Your task to perform on an android device: Go to accessibility settings Image 0: 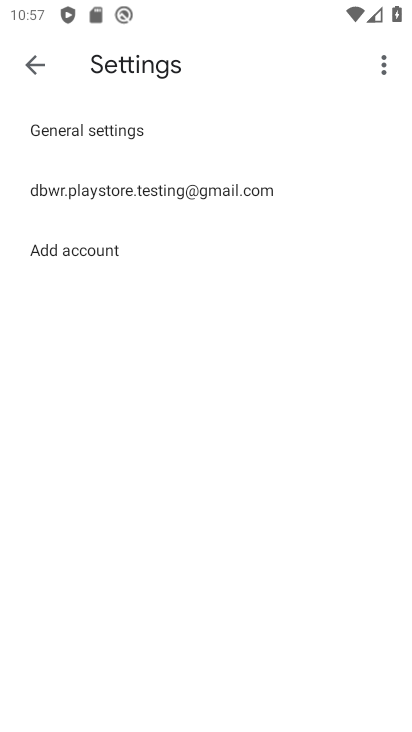
Step 0: press home button
Your task to perform on an android device: Go to accessibility settings Image 1: 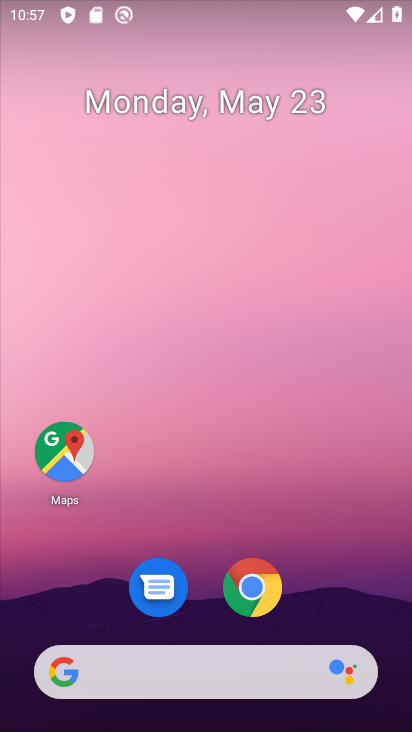
Step 1: drag from (349, 613) to (300, 225)
Your task to perform on an android device: Go to accessibility settings Image 2: 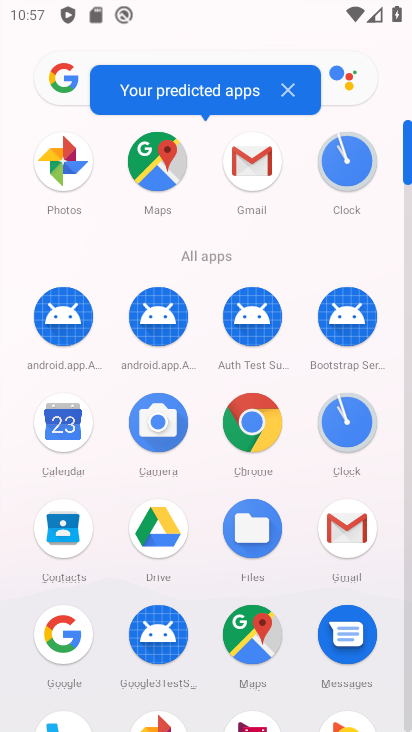
Step 2: click (407, 694)
Your task to perform on an android device: Go to accessibility settings Image 3: 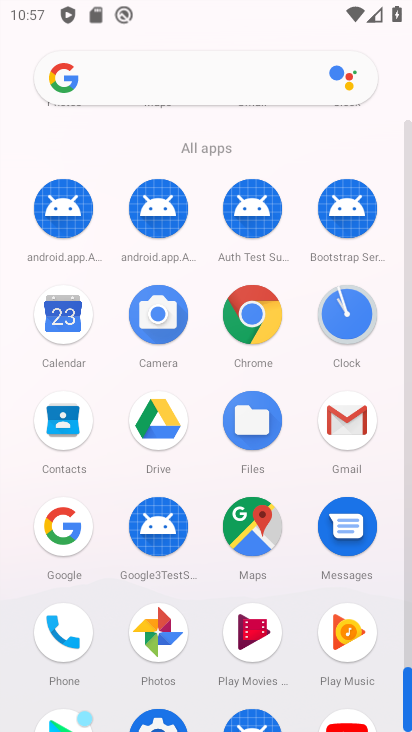
Step 3: click (165, 723)
Your task to perform on an android device: Go to accessibility settings Image 4: 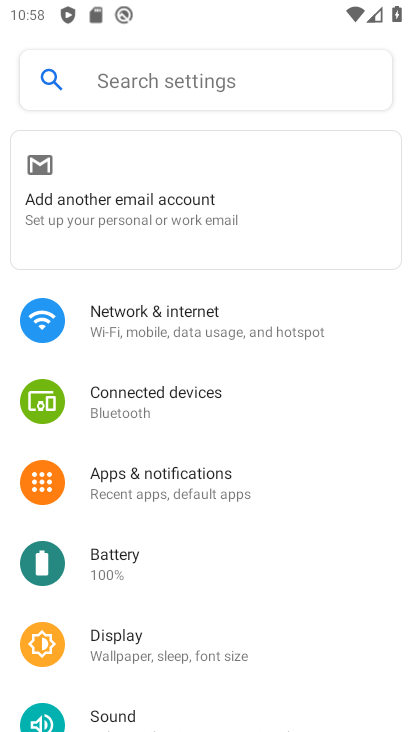
Step 4: drag from (248, 693) to (259, 257)
Your task to perform on an android device: Go to accessibility settings Image 5: 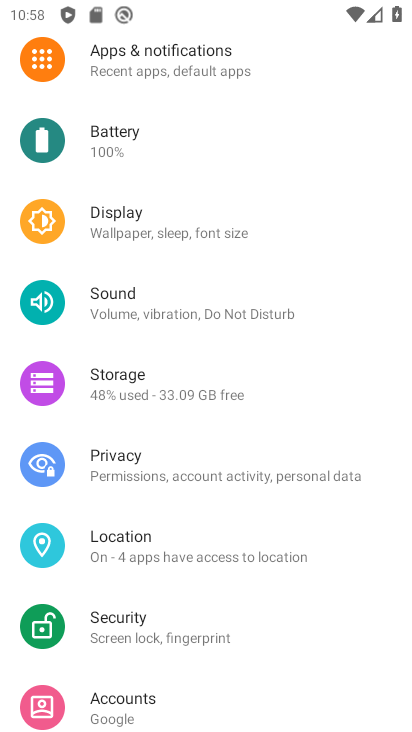
Step 5: drag from (218, 666) to (210, 332)
Your task to perform on an android device: Go to accessibility settings Image 6: 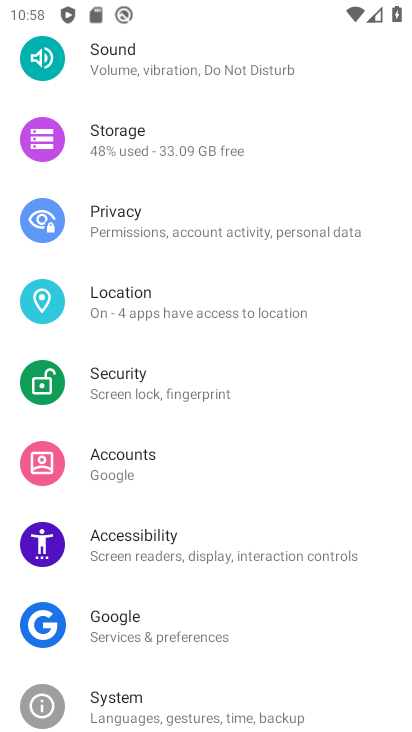
Step 6: click (218, 547)
Your task to perform on an android device: Go to accessibility settings Image 7: 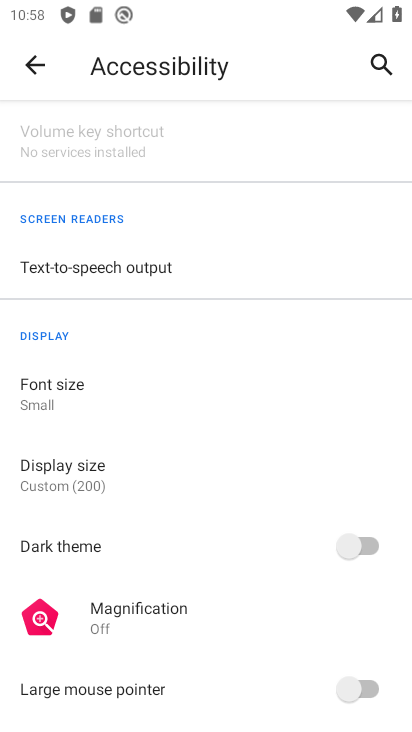
Step 7: task complete